Your task to perform on an android device: turn on improve location accuracy Image 0: 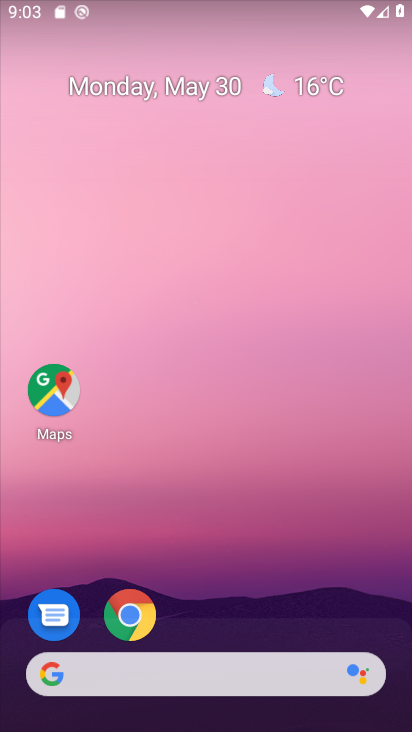
Step 0: drag from (221, 431) to (230, 43)
Your task to perform on an android device: turn on improve location accuracy Image 1: 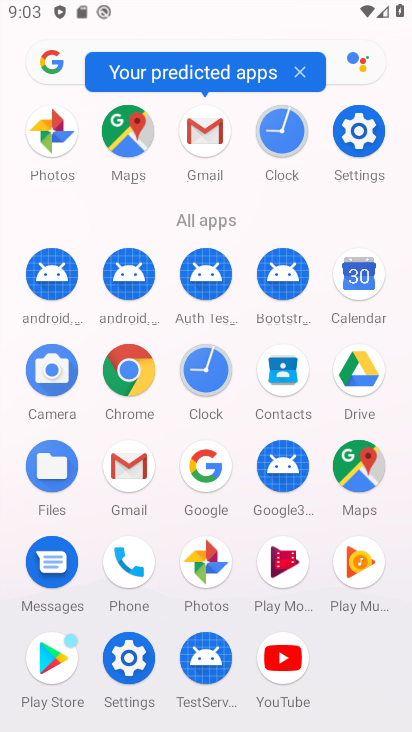
Step 1: click (360, 128)
Your task to perform on an android device: turn on improve location accuracy Image 2: 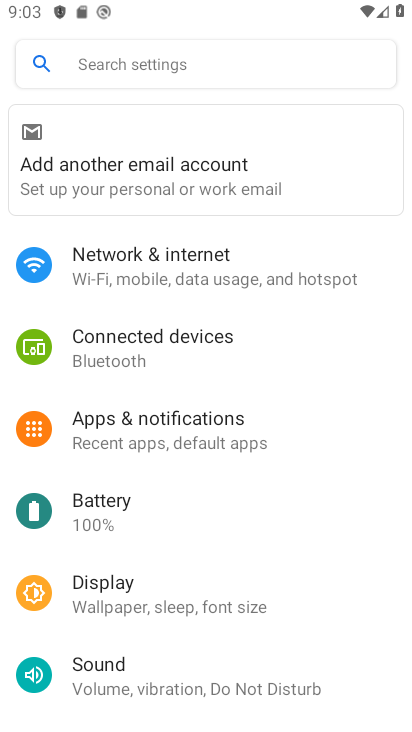
Step 2: drag from (164, 674) to (242, 71)
Your task to perform on an android device: turn on improve location accuracy Image 3: 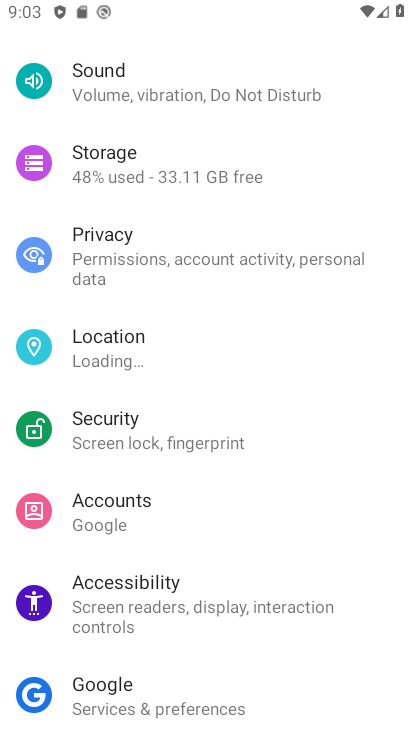
Step 3: click (110, 341)
Your task to perform on an android device: turn on improve location accuracy Image 4: 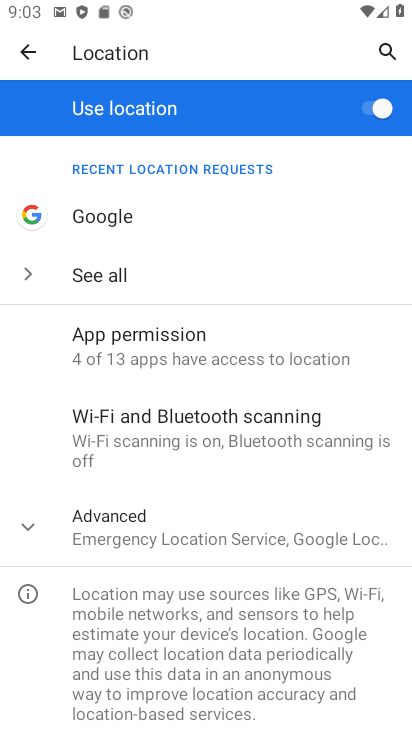
Step 4: click (135, 528)
Your task to perform on an android device: turn on improve location accuracy Image 5: 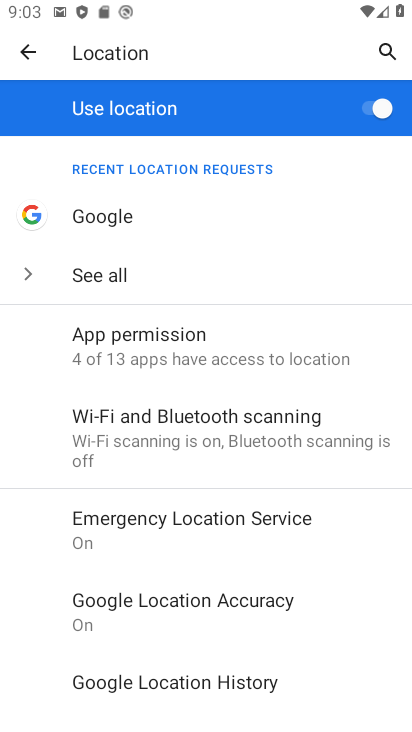
Step 5: click (199, 602)
Your task to perform on an android device: turn on improve location accuracy Image 6: 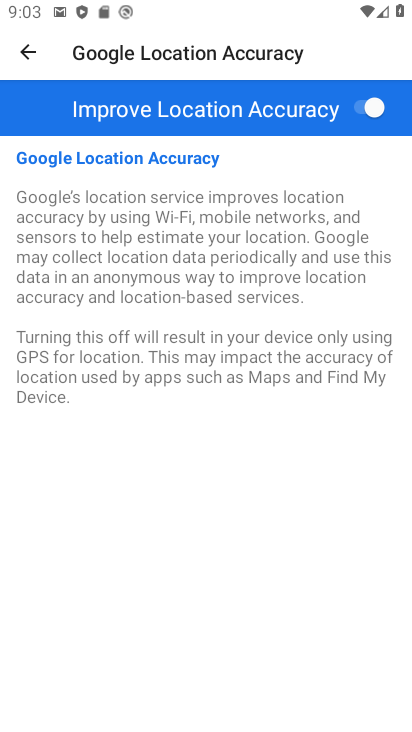
Step 6: task complete